Your task to perform on an android device: Open Youtube and go to "Your channel" Image 0: 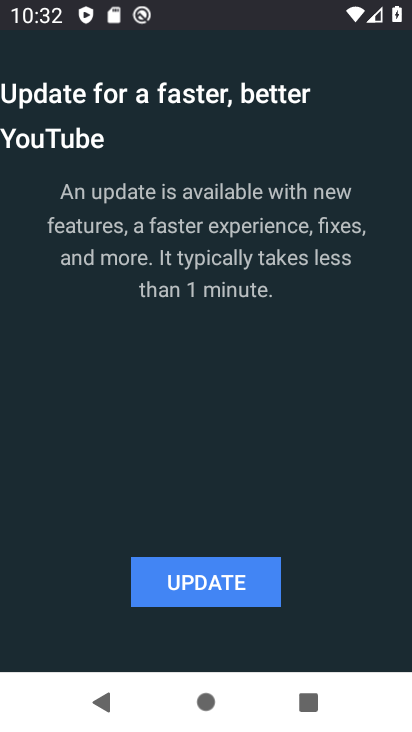
Step 0: click (215, 585)
Your task to perform on an android device: Open Youtube and go to "Your channel" Image 1: 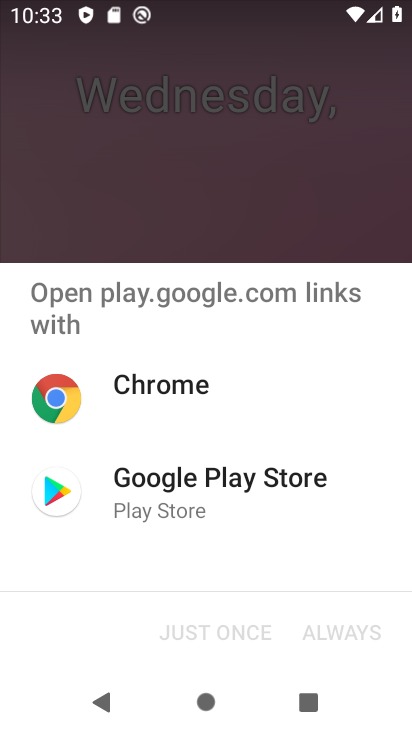
Step 1: click (170, 487)
Your task to perform on an android device: Open Youtube and go to "Your channel" Image 2: 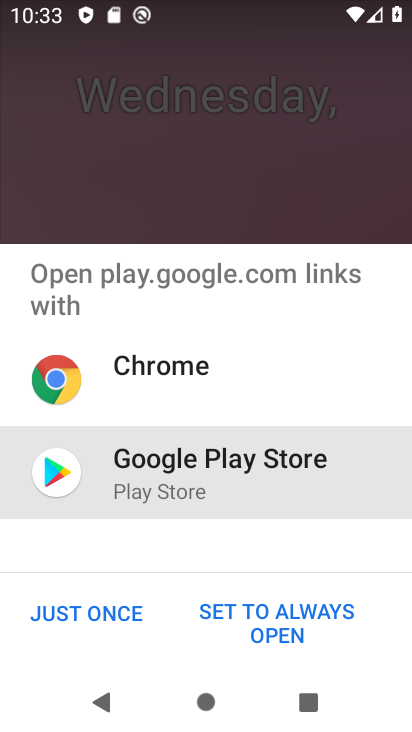
Step 2: click (87, 615)
Your task to perform on an android device: Open Youtube and go to "Your channel" Image 3: 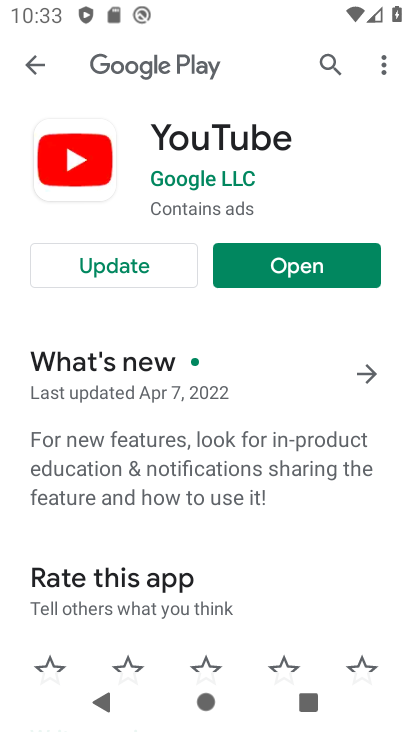
Step 3: click (283, 271)
Your task to perform on an android device: Open Youtube and go to "Your channel" Image 4: 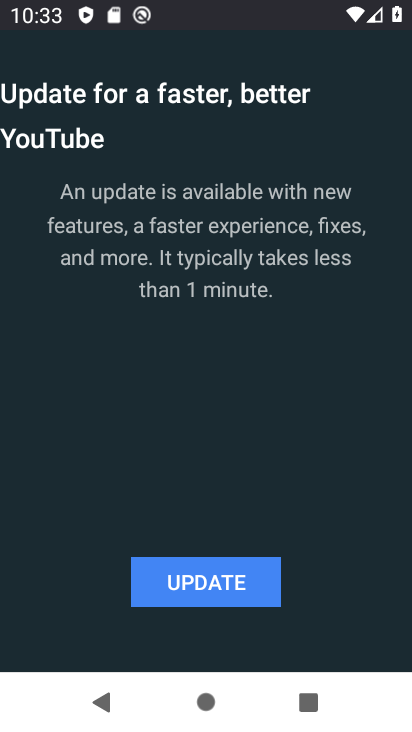
Step 4: click (206, 570)
Your task to perform on an android device: Open Youtube and go to "Your channel" Image 5: 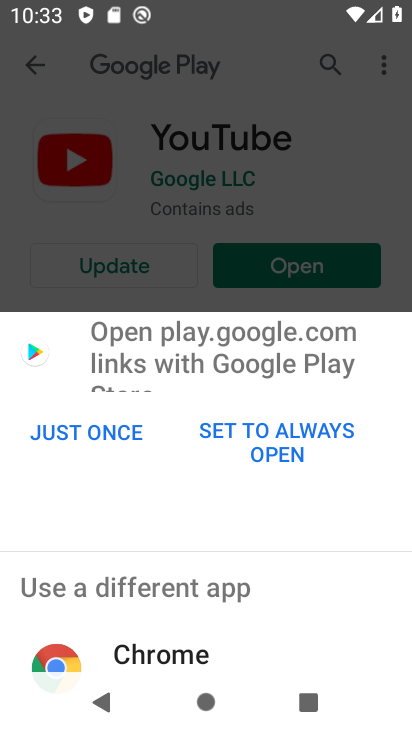
Step 5: click (73, 437)
Your task to perform on an android device: Open Youtube and go to "Your channel" Image 6: 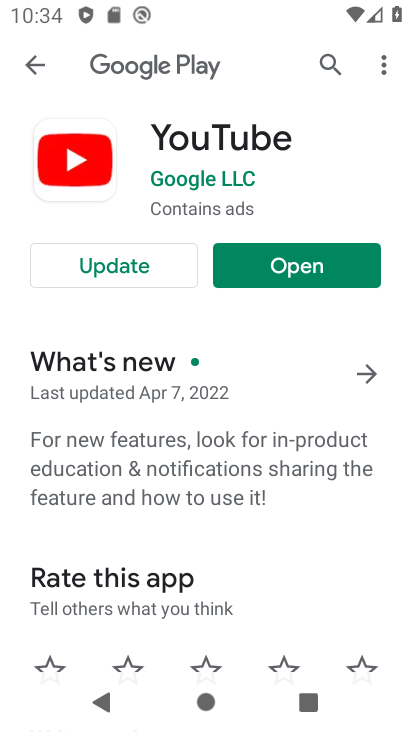
Step 6: click (117, 278)
Your task to perform on an android device: Open Youtube and go to "Your channel" Image 7: 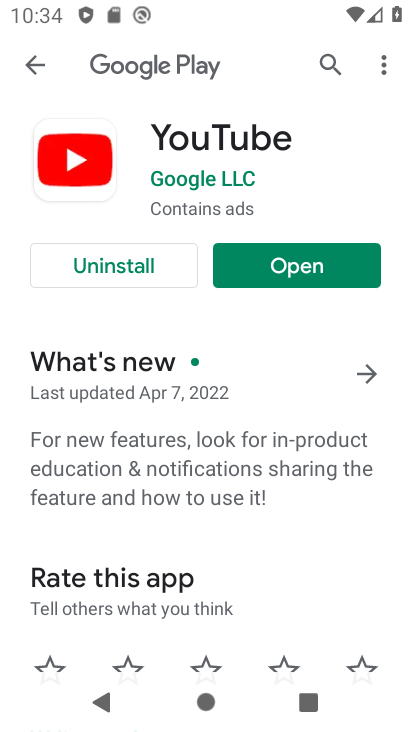
Step 7: click (288, 264)
Your task to perform on an android device: Open Youtube and go to "Your channel" Image 8: 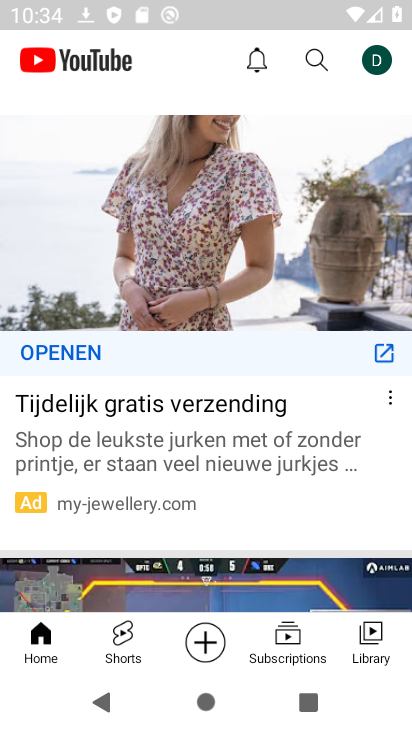
Step 8: click (368, 68)
Your task to perform on an android device: Open Youtube and go to "Your channel" Image 9: 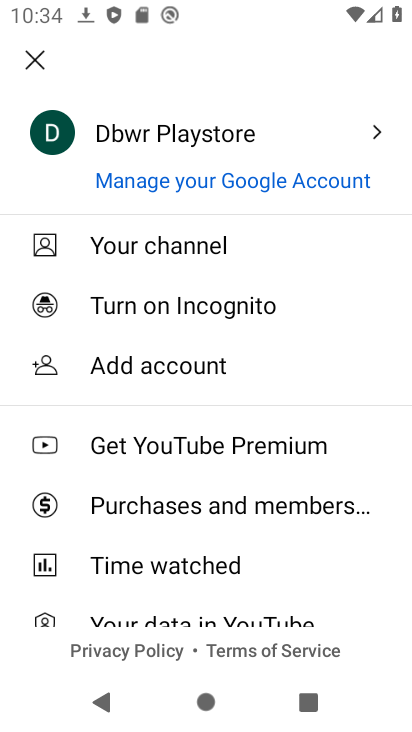
Step 9: click (177, 248)
Your task to perform on an android device: Open Youtube and go to "Your channel" Image 10: 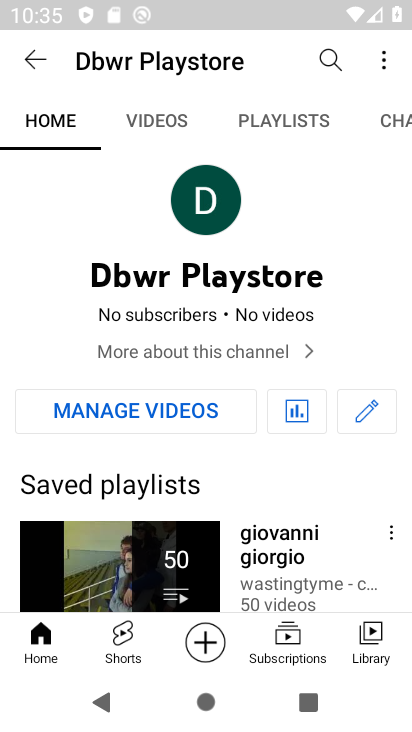
Step 10: task complete